Your task to perform on an android device: Go to location settings Image 0: 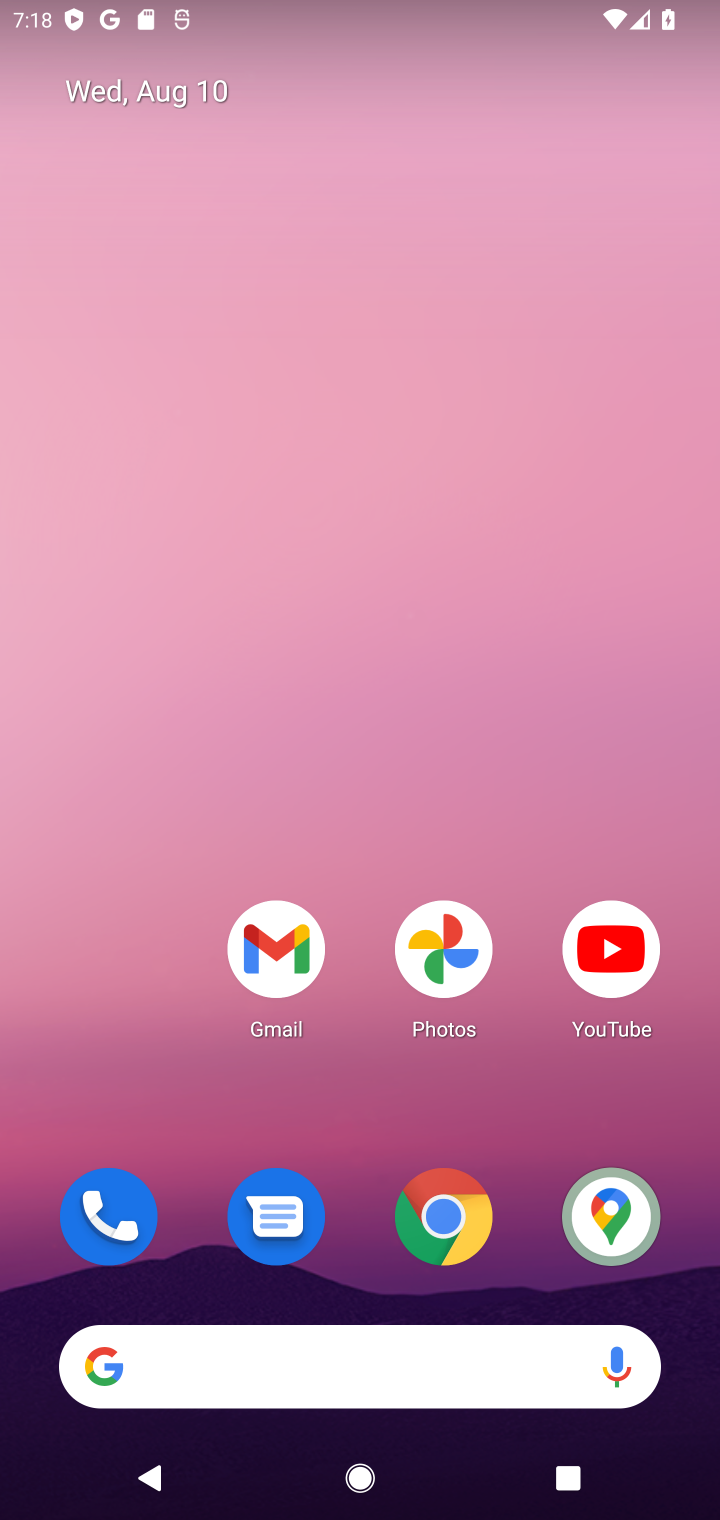
Step 0: press home button
Your task to perform on an android device: Go to location settings Image 1: 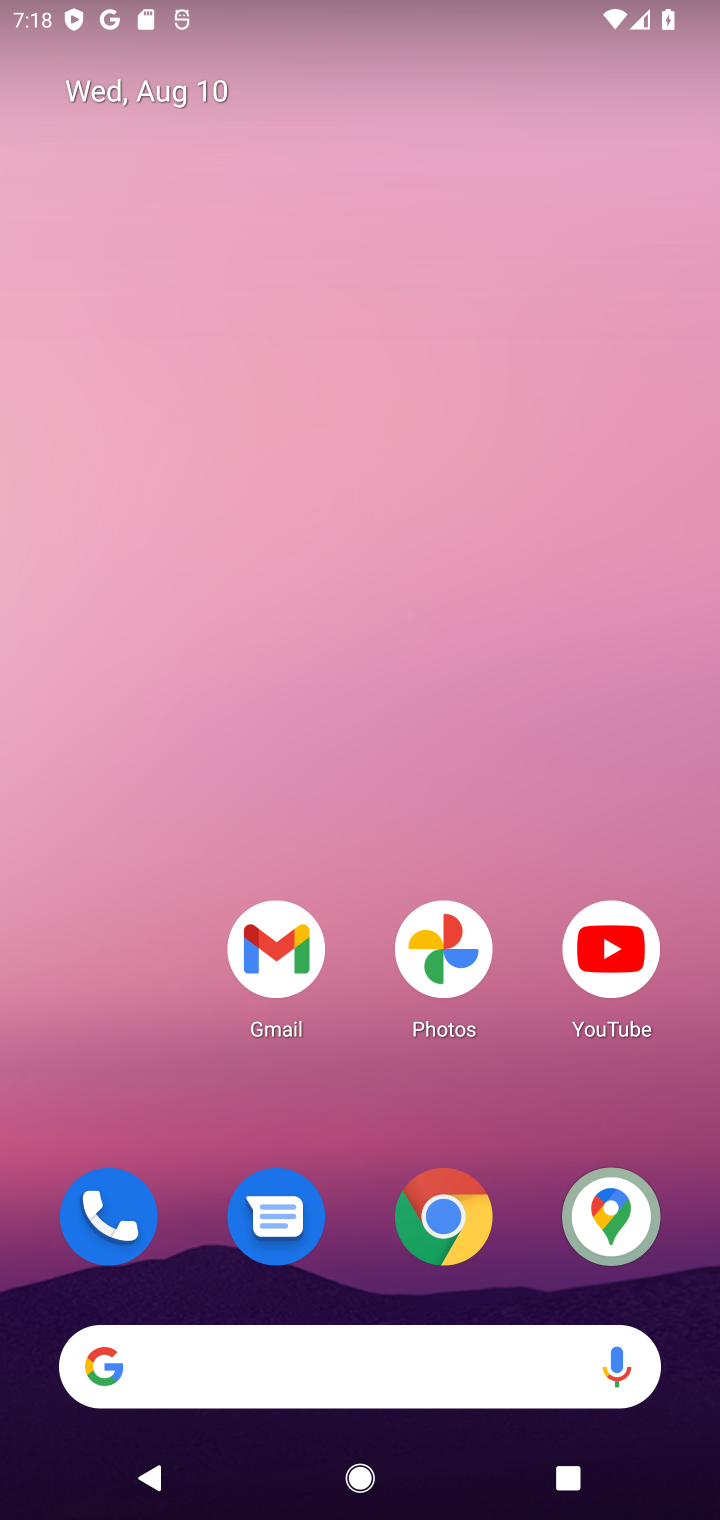
Step 1: drag from (54, 1315) to (695, 342)
Your task to perform on an android device: Go to location settings Image 2: 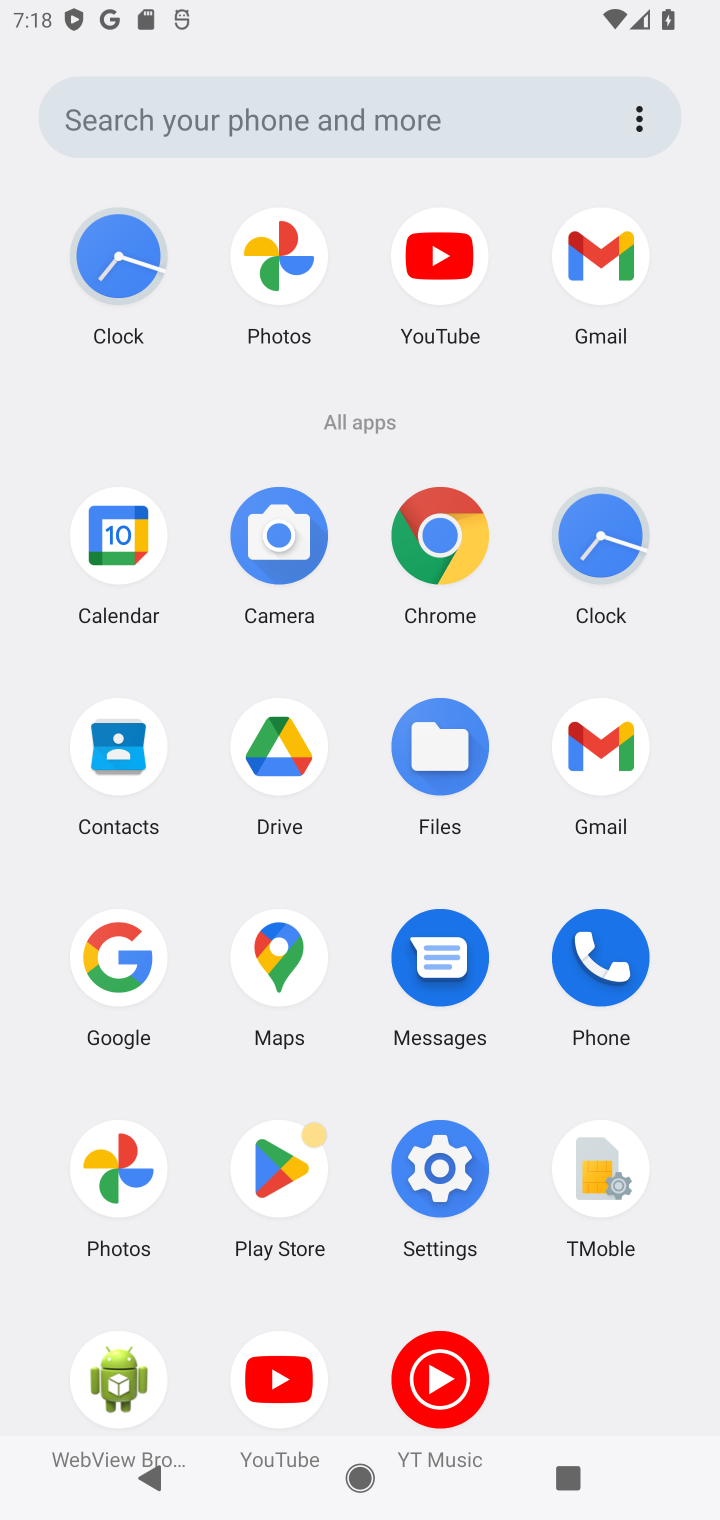
Step 2: click (450, 1224)
Your task to perform on an android device: Go to location settings Image 3: 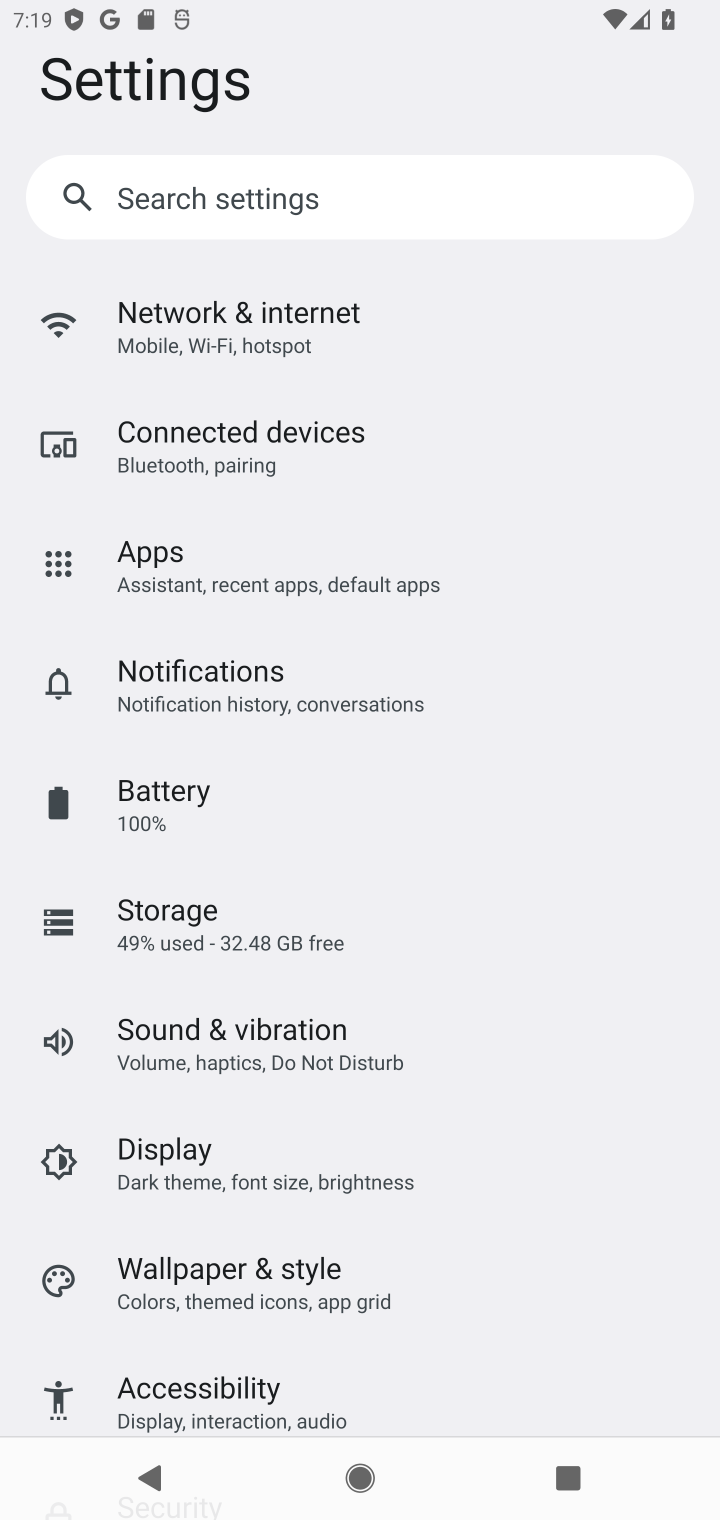
Step 3: drag from (15, 1452) to (315, 566)
Your task to perform on an android device: Go to location settings Image 4: 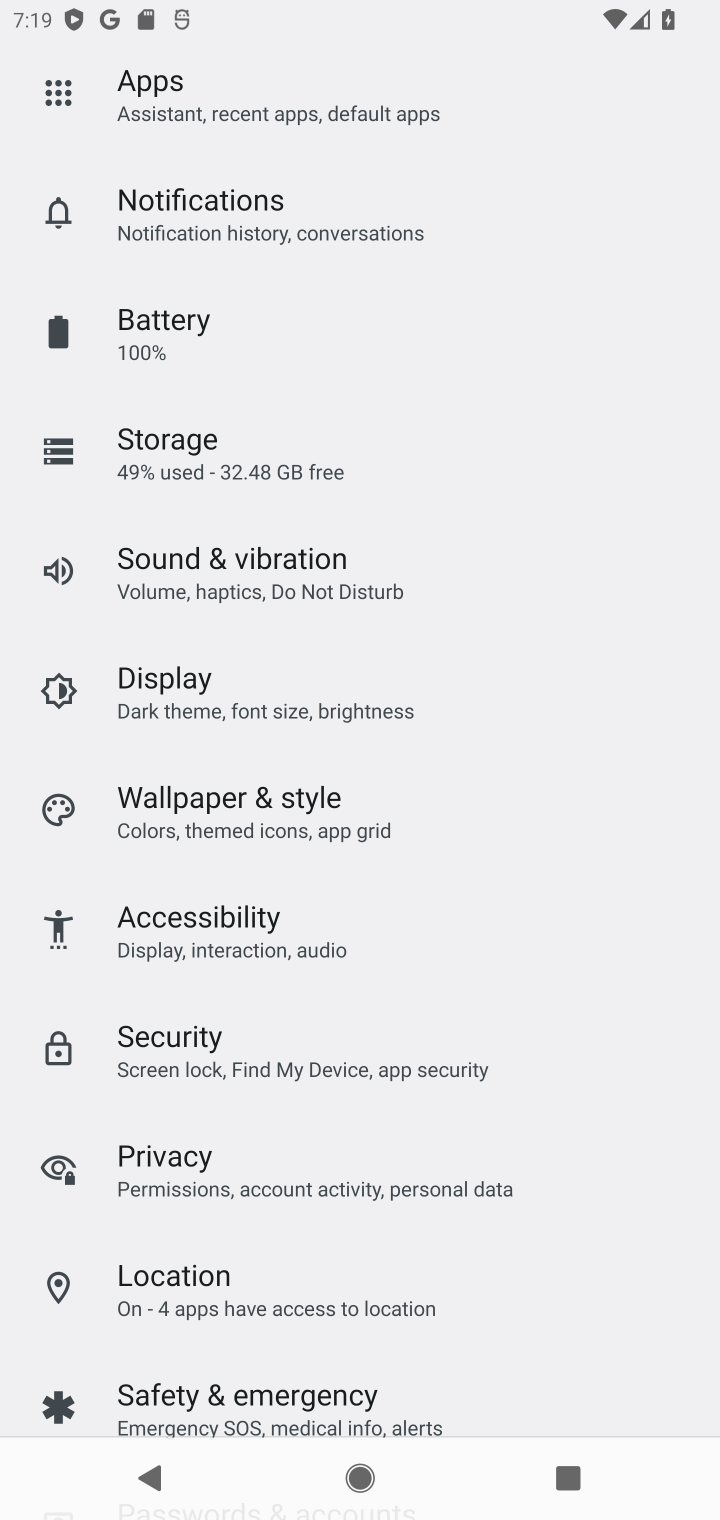
Step 4: click (180, 1280)
Your task to perform on an android device: Go to location settings Image 5: 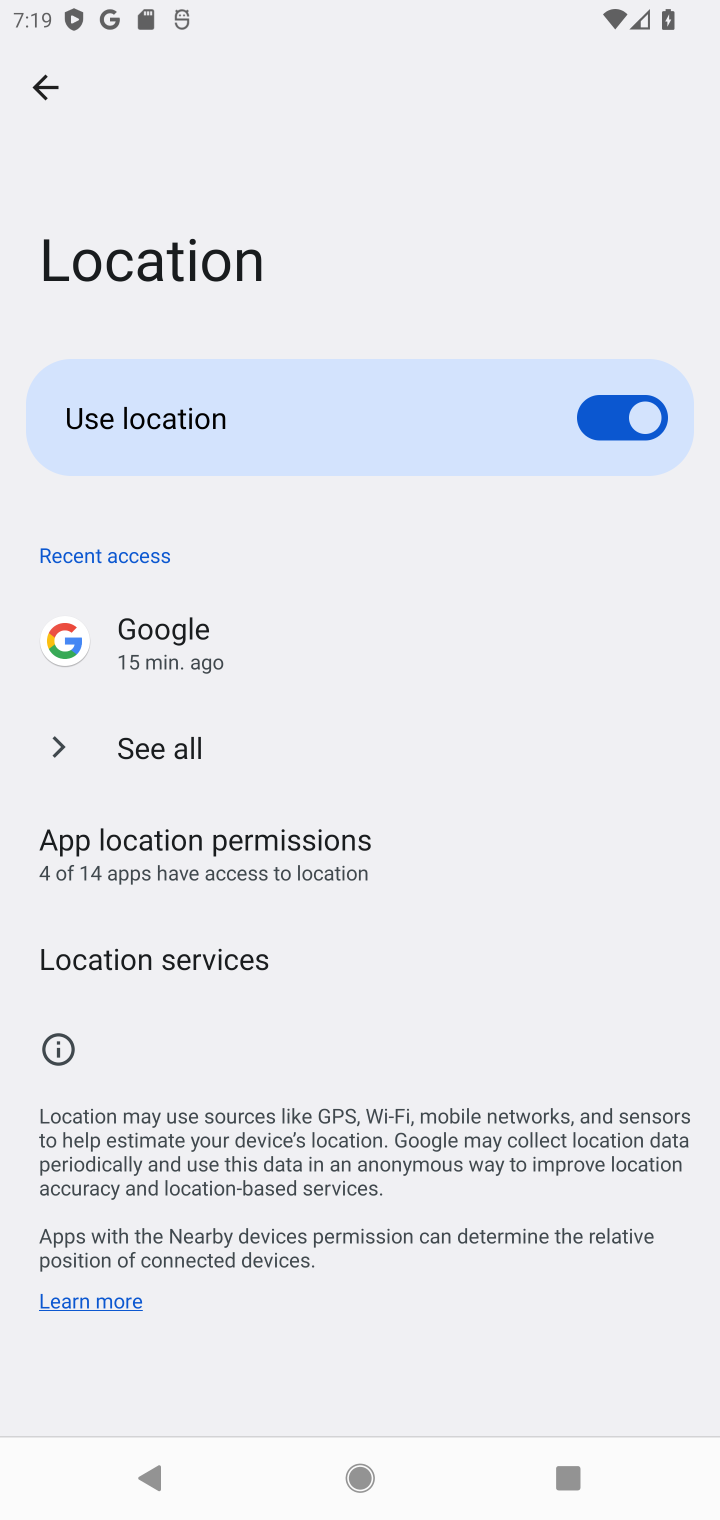
Step 5: task complete